Your task to perform on an android device: Add "razer kraken" to the cart on newegg.com Image 0: 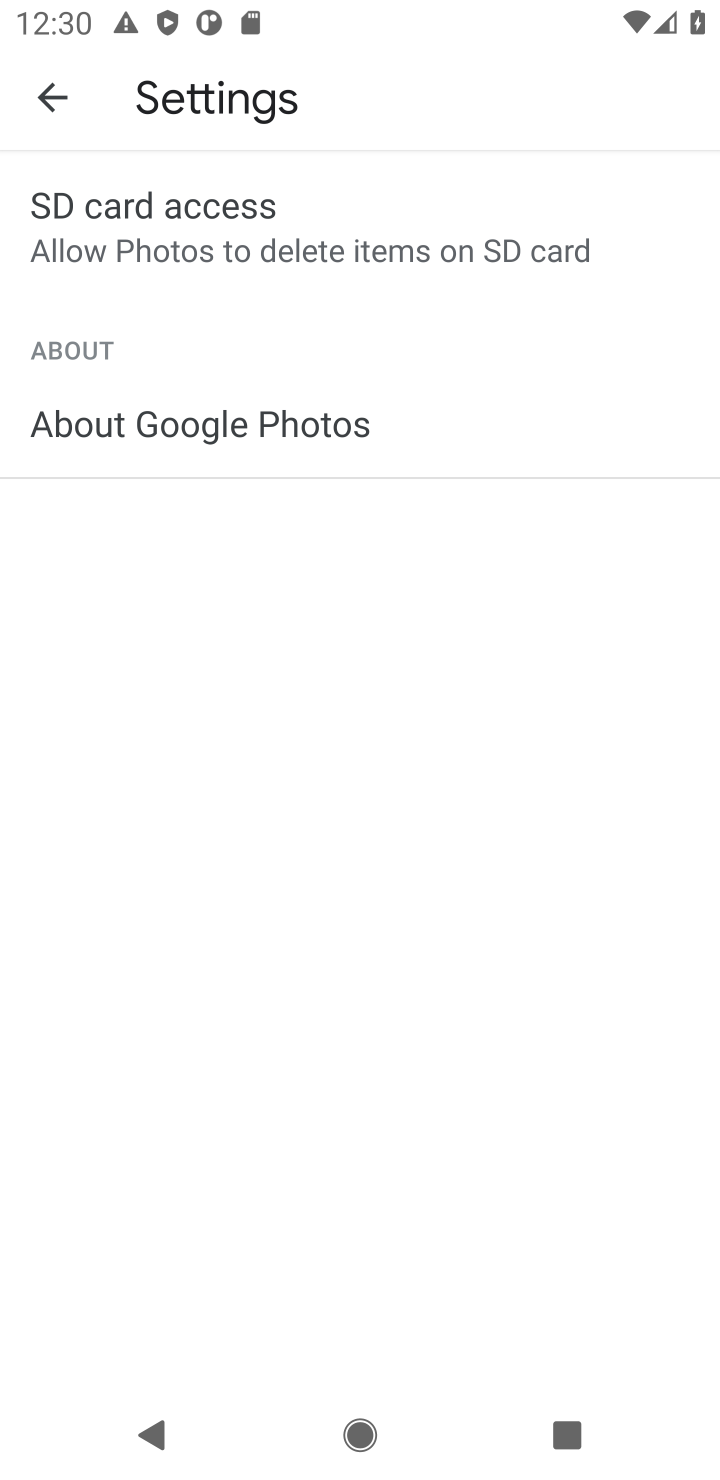
Step 0: task complete